Your task to perform on an android device: turn notification dots on Image 0: 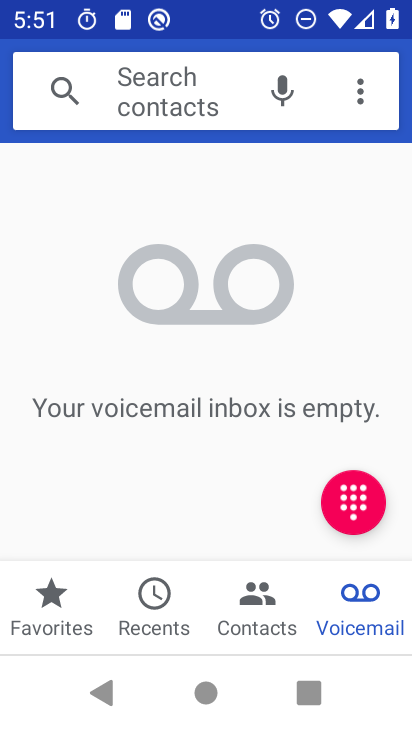
Step 0: press home button
Your task to perform on an android device: turn notification dots on Image 1: 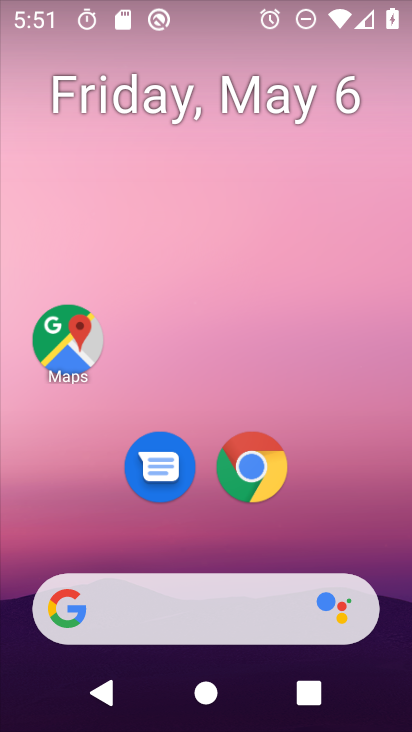
Step 1: drag from (338, 528) to (352, 172)
Your task to perform on an android device: turn notification dots on Image 2: 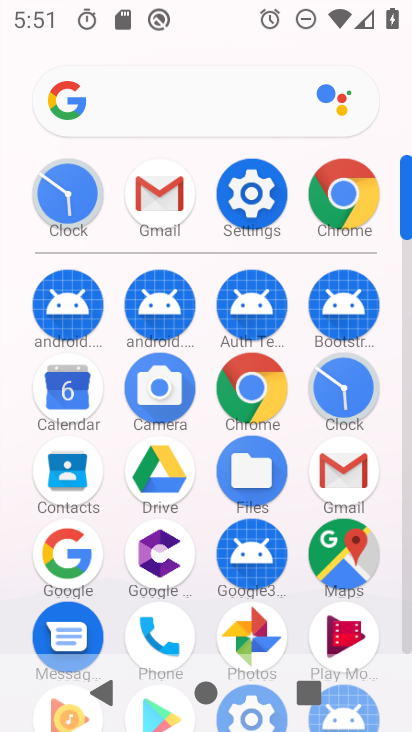
Step 2: click (252, 226)
Your task to perform on an android device: turn notification dots on Image 3: 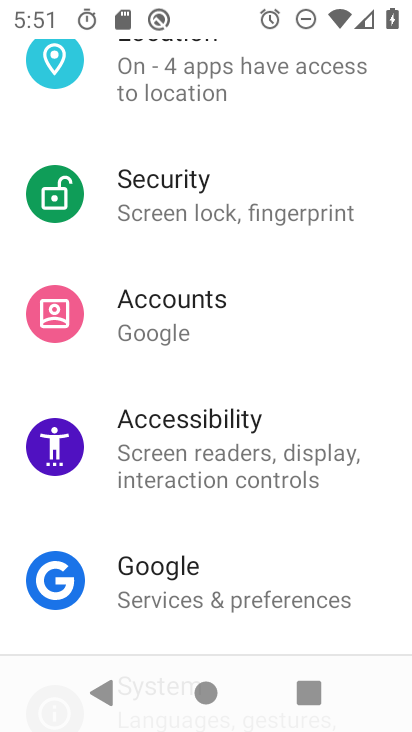
Step 3: drag from (252, 224) to (258, 520)
Your task to perform on an android device: turn notification dots on Image 4: 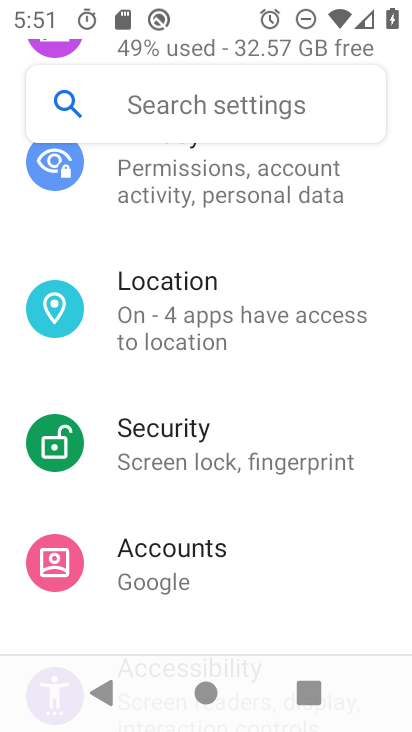
Step 4: drag from (288, 287) to (262, 593)
Your task to perform on an android device: turn notification dots on Image 5: 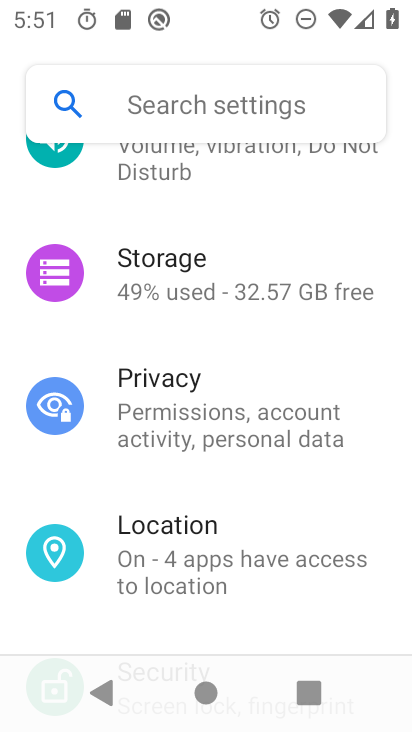
Step 5: click (228, 573)
Your task to perform on an android device: turn notification dots on Image 6: 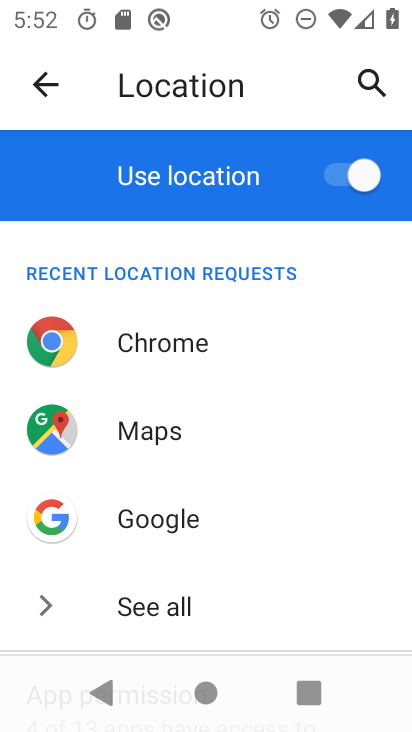
Step 6: press back button
Your task to perform on an android device: turn notification dots on Image 7: 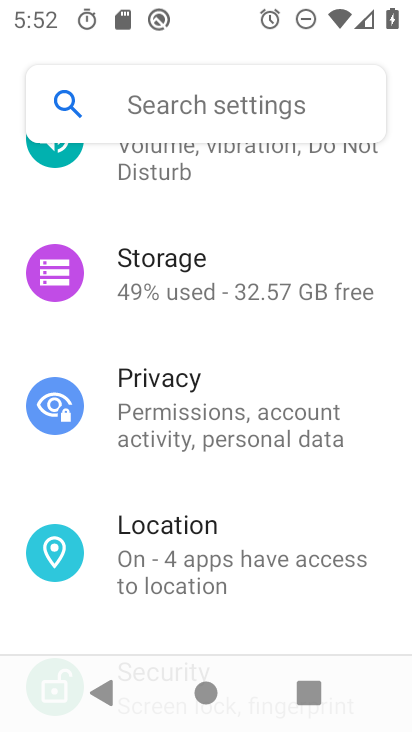
Step 7: drag from (224, 354) to (227, 527)
Your task to perform on an android device: turn notification dots on Image 8: 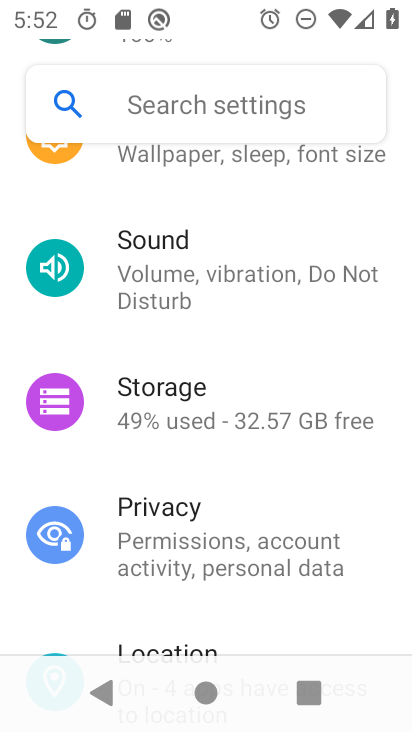
Step 8: drag from (227, 353) to (243, 597)
Your task to perform on an android device: turn notification dots on Image 9: 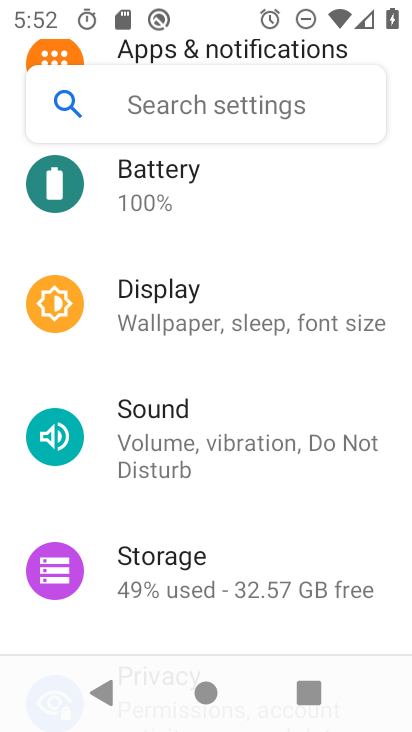
Step 9: drag from (242, 339) to (239, 666)
Your task to perform on an android device: turn notification dots on Image 10: 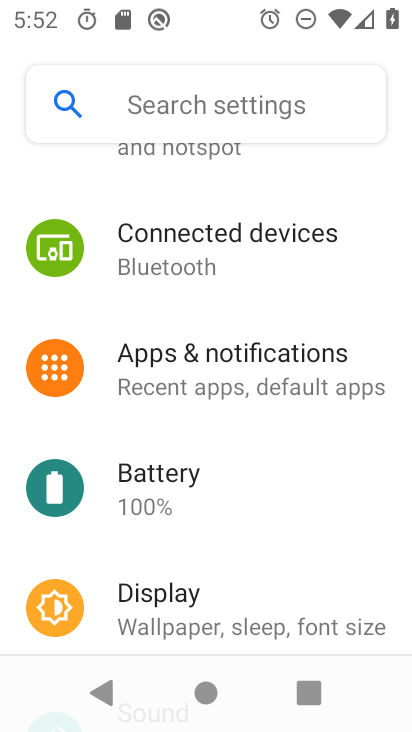
Step 10: click (227, 390)
Your task to perform on an android device: turn notification dots on Image 11: 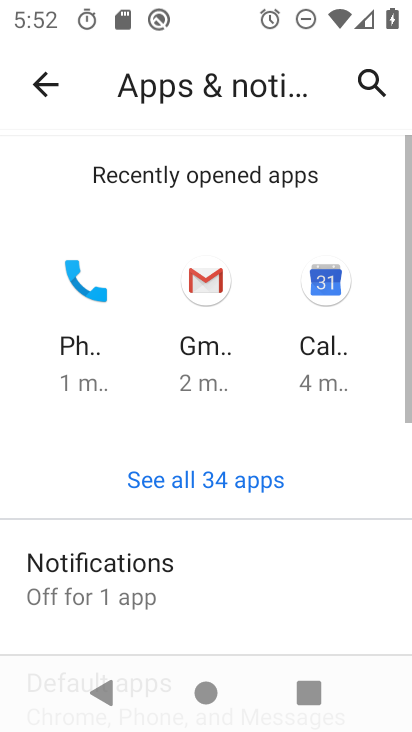
Step 11: drag from (262, 581) to (263, 276)
Your task to perform on an android device: turn notification dots on Image 12: 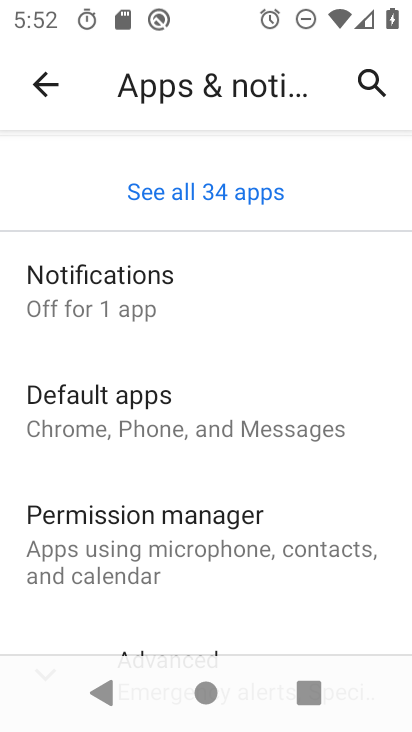
Step 12: drag from (253, 515) to (258, 269)
Your task to perform on an android device: turn notification dots on Image 13: 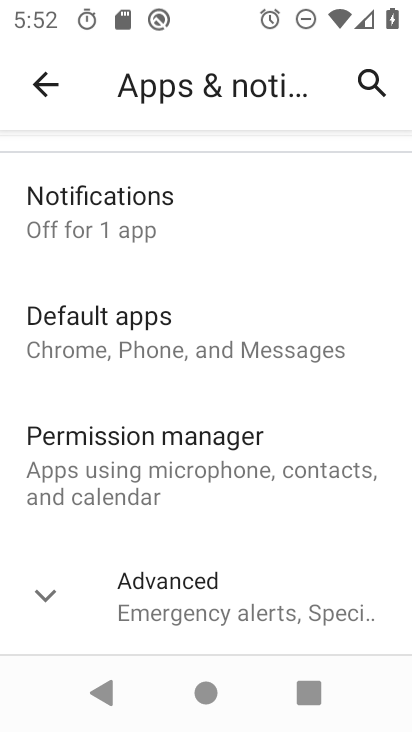
Step 13: drag from (172, 592) to (184, 372)
Your task to perform on an android device: turn notification dots on Image 14: 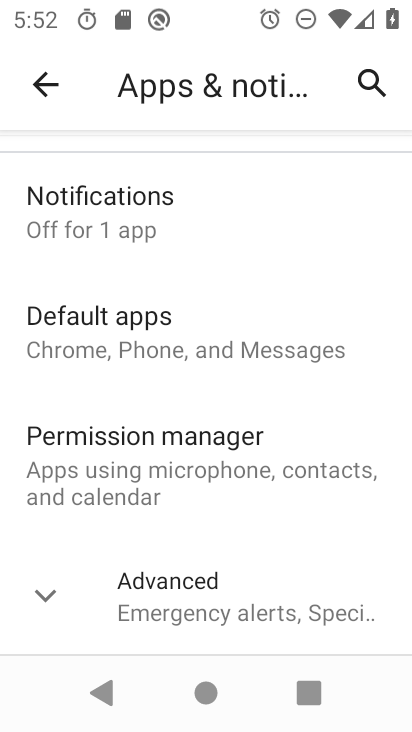
Step 14: click (130, 200)
Your task to perform on an android device: turn notification dots on Image 15: 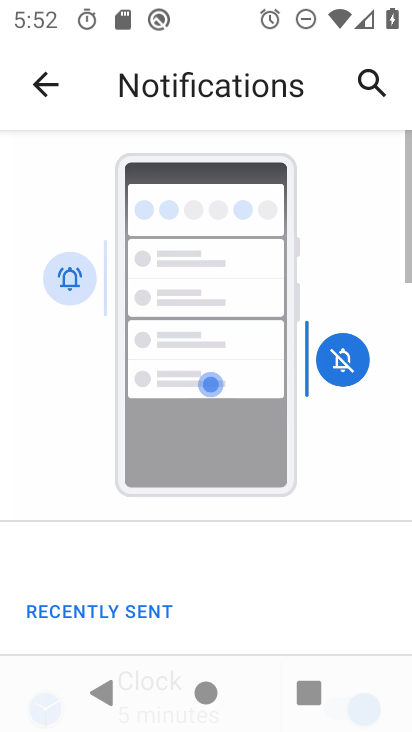
Step 15: drag from (198, 585) to (261, 158)
Your task to perform on an android device: turn notification dots on Image 16: 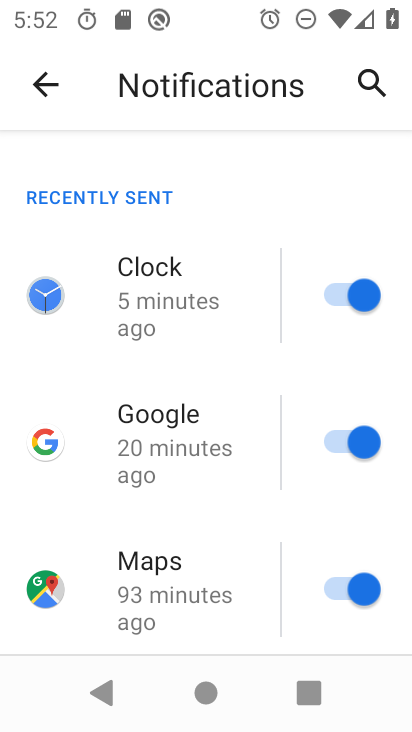
Step 16: drag from (200, 566) to (223, 117)
Your task to perform on an android device: turn notification dots on Image 17: 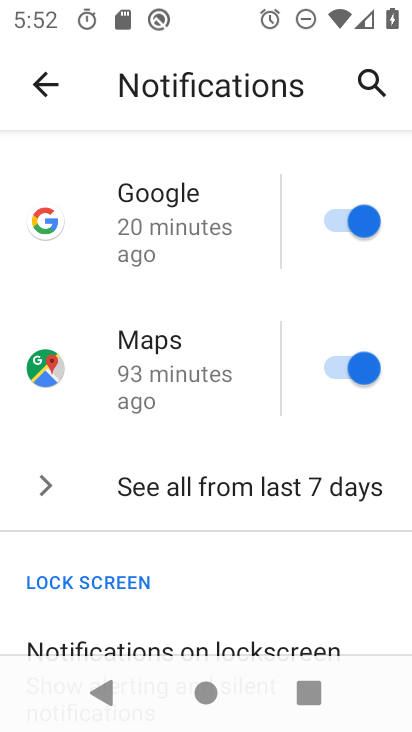
Step 17: drag from (181, 471) to (225, 255)
Your task to perform on an android device: turn notification dots on Image 18: 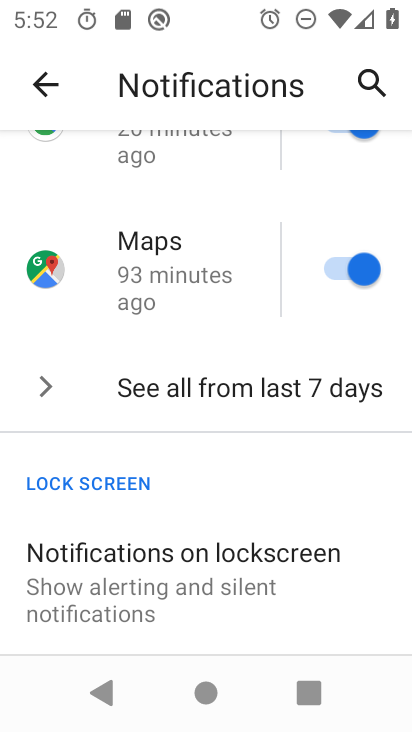
Step 18: click (179, 569)
Your task to perform on an android device: turn notification dots on Image 19: 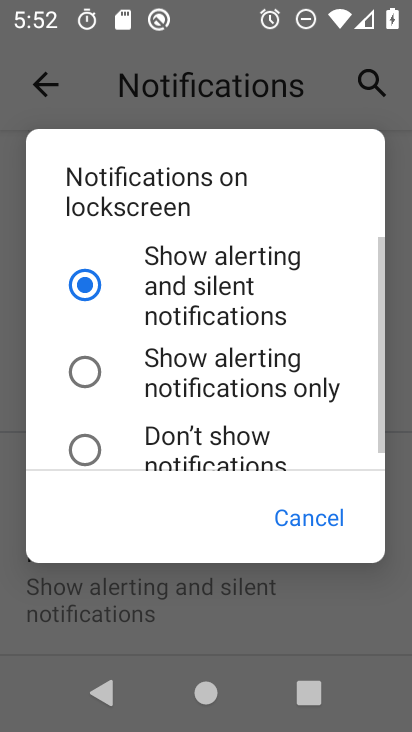
Step 19: click (323, 518)
Your task to perform on an android device: turn notification dots on Image 20: 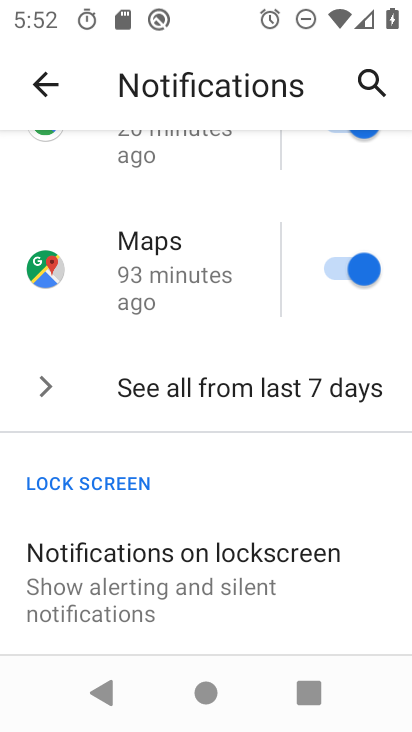
Step 20: drag from (218, 619) to (232, 227)
Your task to perform on an android device: turn notification dots on Image 21: 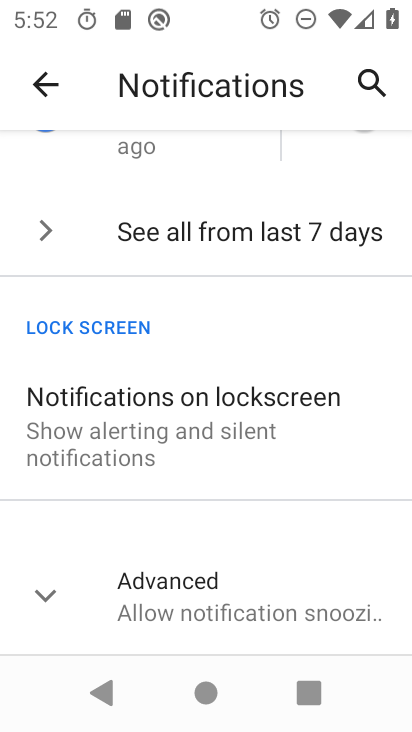
Step 21: click (121, 625)
Your task to perform on an android device: turn notification dots on Image 22: 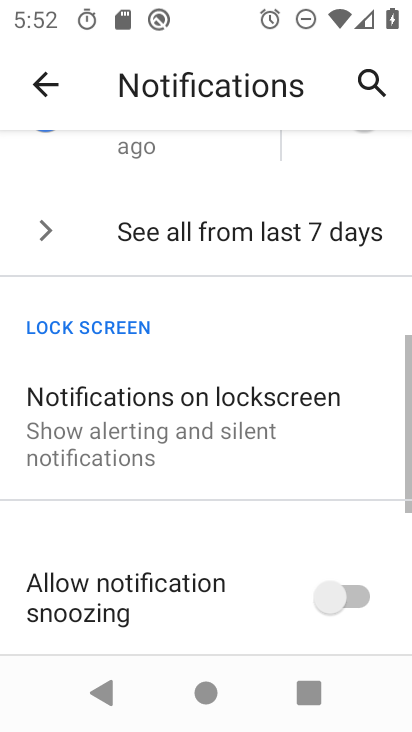
Step 22: task complete